Your task to perform on an android device: turn on javascript in the chrome app Image 0: 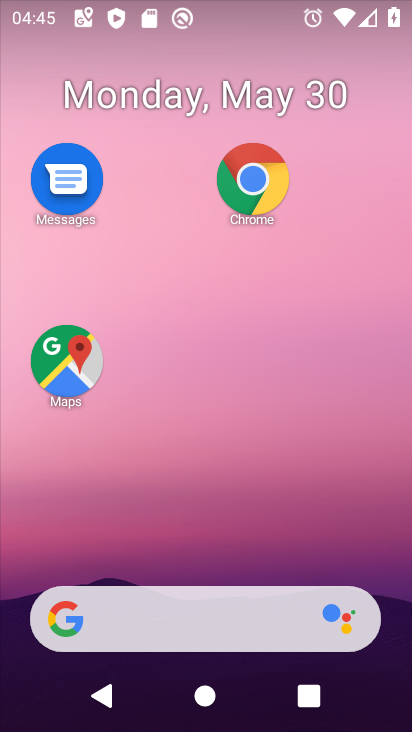
Step 0: click (251, 187)
Your task to perform on an android device: turn on javascript in the chrome app Image 1: 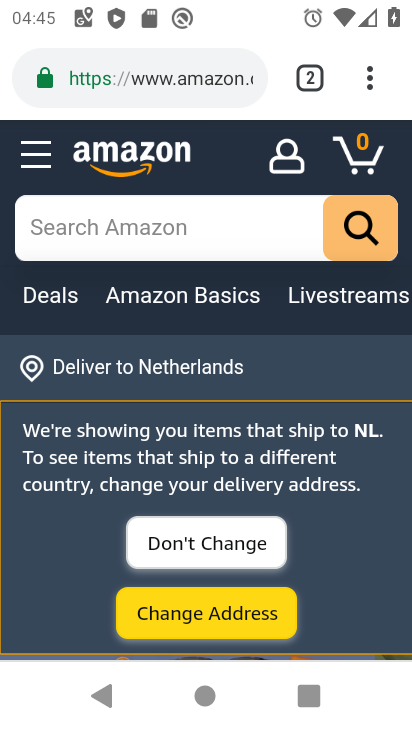
Step 1: click (371, 80)
Your task to perform on an android device: turn on javascript in the chrome app Image 2: 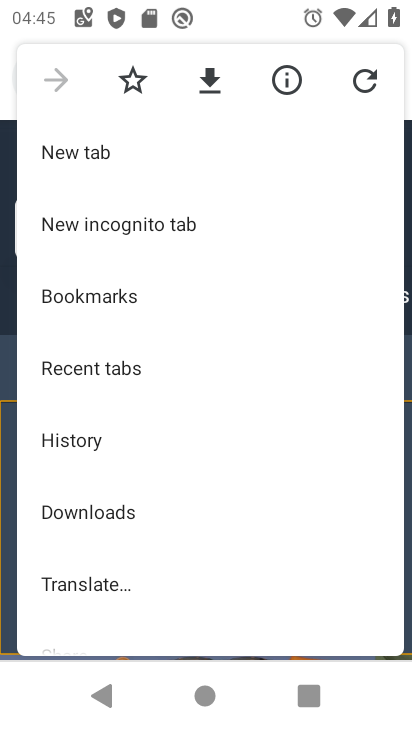
Step 2: drag from (84, 621) to (104, 303)
Your task to perform on an android device: turn on javascript in the chrome app Image 3: 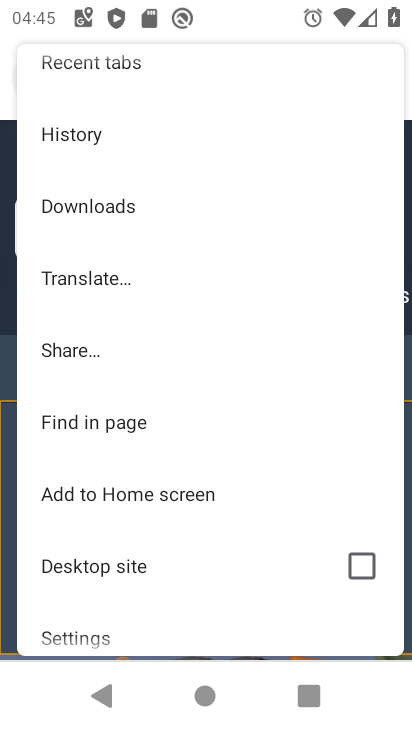
Step 3: click (78, 647)
Your task to perform on an android device: turn on javascript in the chrome app Image 4: 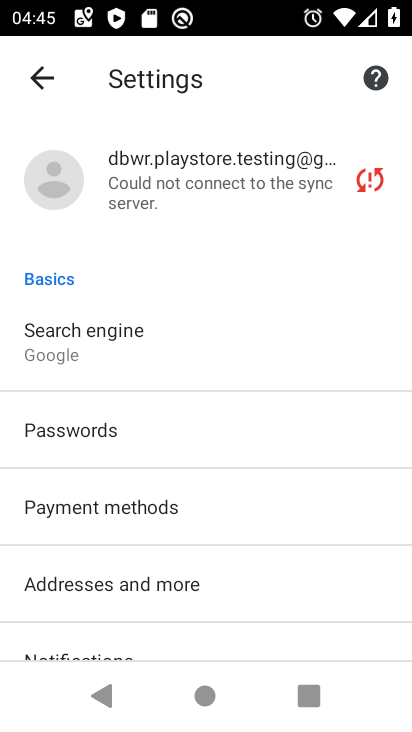
Step 4: drag from (104, 615) to (148, 283)
Your task to perform on an android device: turn on javascript in the chrome app Image 5: 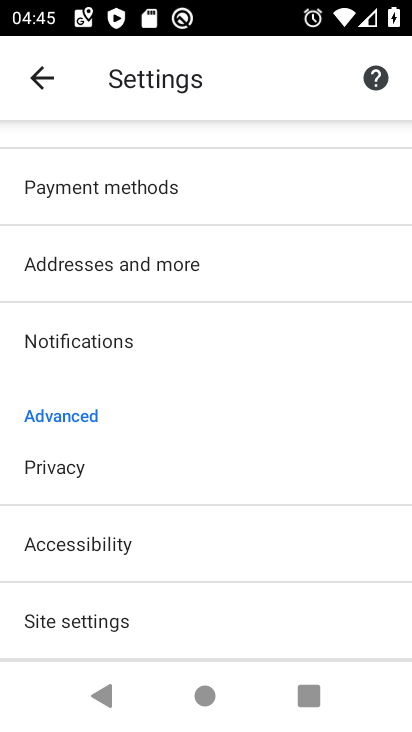
Step 5: drag from (187, 583) to (208, 233)
Your task to perform on an android device: turn on javascript in the chrome app Image 6: 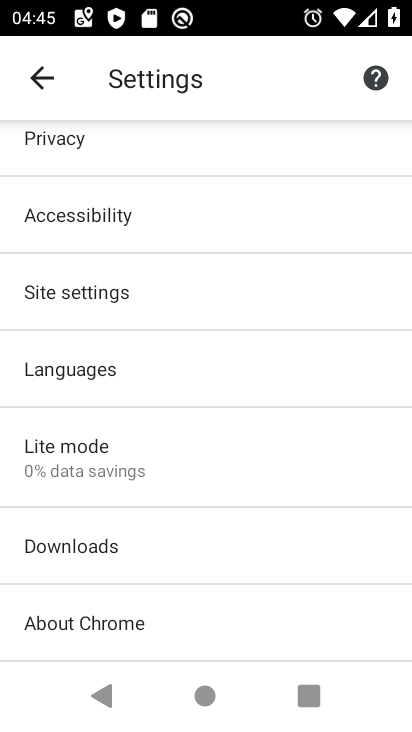
Step 6: click (72, 285)
Your task to perform on an android device: turn on javascript in the chrome app Image 7: 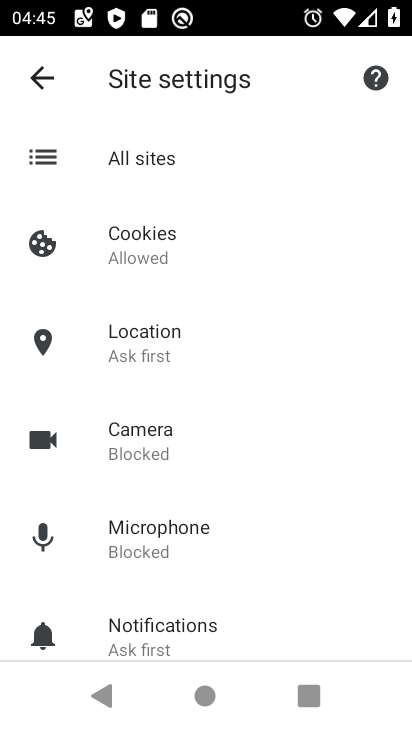
Step 7: drag from (211, 577) to (250, 281)
Your task to perform on an android device: turn on javascript in the chrome app Image 8: 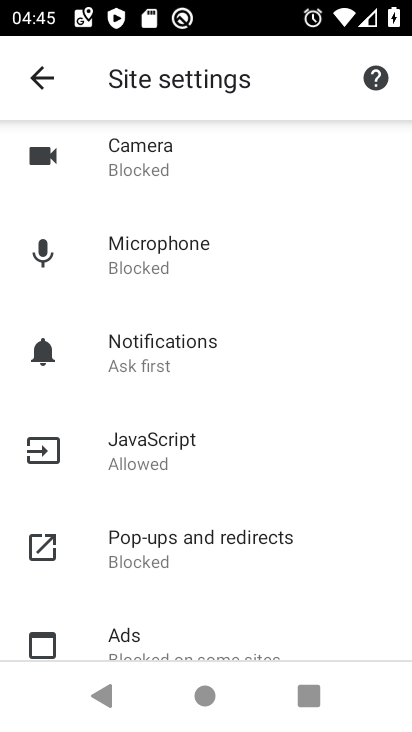
Step 8: click (164, 470)
Your task to perform on an android device: turn on javascript in the chrome app Image 9: 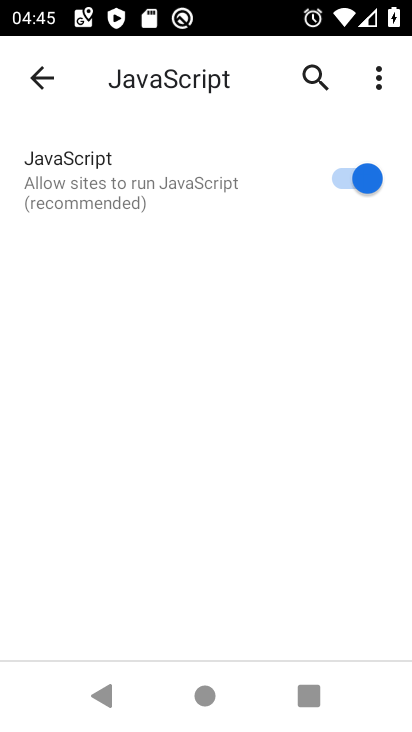
Step 9: task complete